Your task to perform on an android device: Open the calendar and show me this week's events? Image 0: 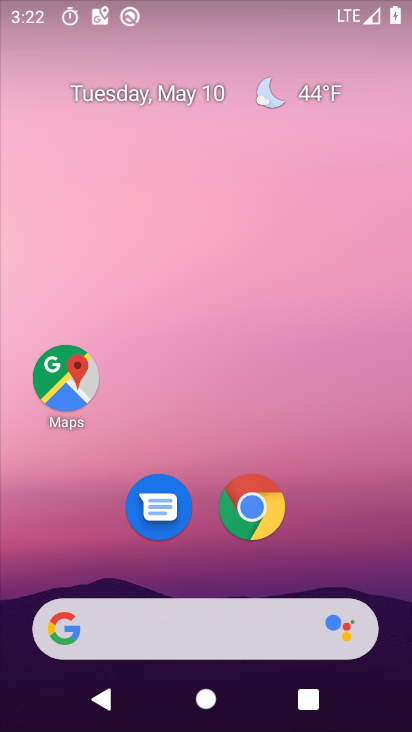
Step 0: drag from (199, 607) to (256, 298)
Your task to perform on an android device: Open the calendar and show me this week's events? Image 1: 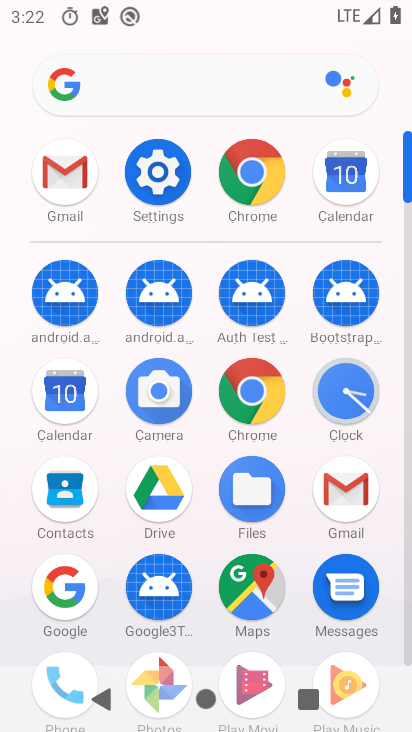
Step 1: click (66, 389)
Your task to perform on an android device: Open the calendar and show me this week's events? Image 2: 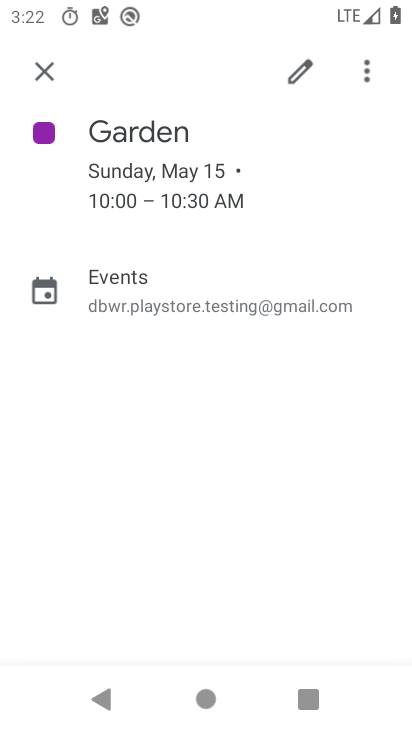
Step 2: click (47, 70)
Your task to perform on an android device: Open the calendar and show me this week's events? Image 3: 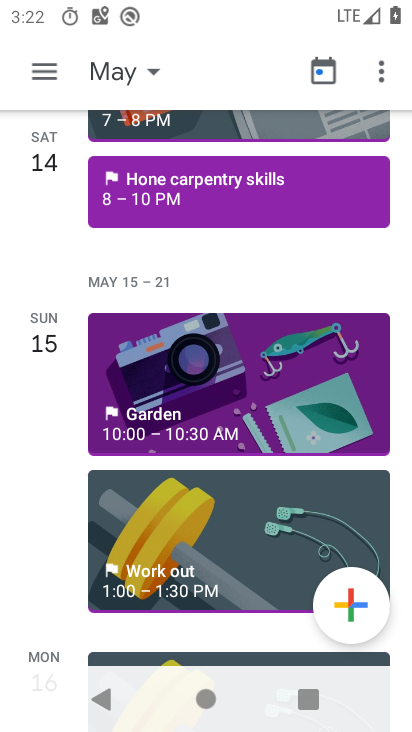
Step 3: drag from (214, 161) to (245, 536)
Your task to perform on an android device: Open the calendar and show me this week's events? Image 4: 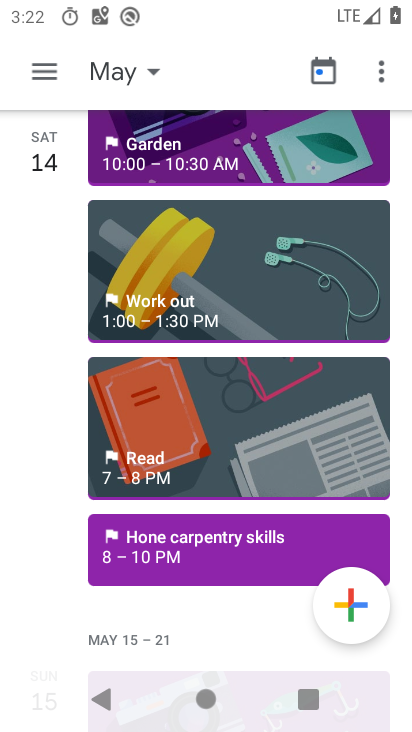
Step 4: drag from (258, 146) to (270, 457)
Your task to perform on an android device: Open the calendar and show me this week's events? Image 5: 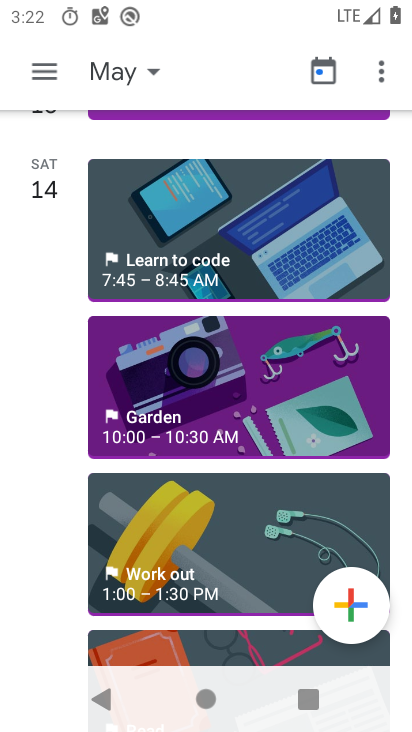
Step 5: drag from (258, 166) to (283, 535)
Your task to perform on an android device: Open the calendar and show me this week's events? Image 6: 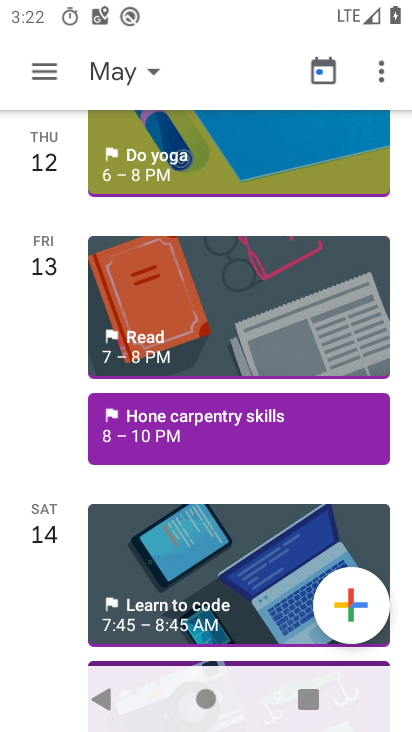
Step 6: drag from (337, 115) to (326, 426)
Your task to perform on an android device: Open the calendar and show me this week's events? Image 7: 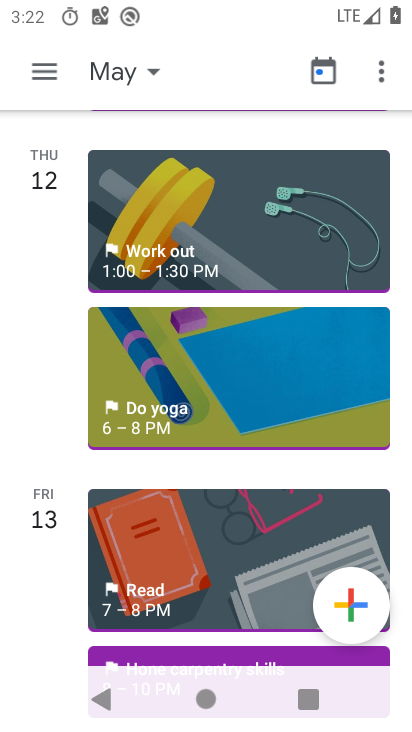
Step 7: drag from (330, 280) to (356, 371)
Your task to perform on an android device: Open the calendar and show me this week's events? Image 8: 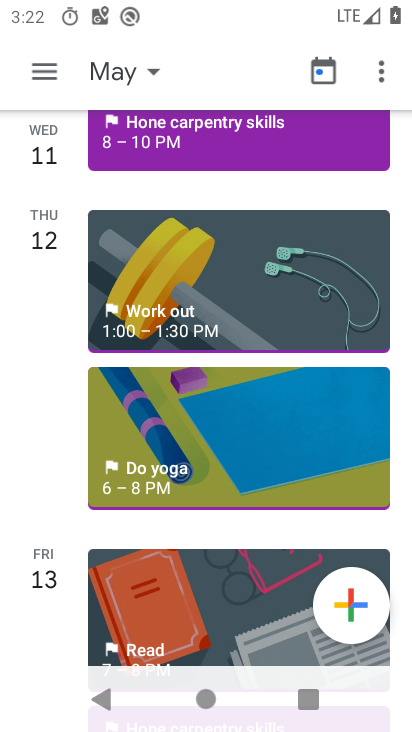
Step 8: click (309, 561)
Your task to perform on an android device: Open the calendar and show me this week's events? Image 9: 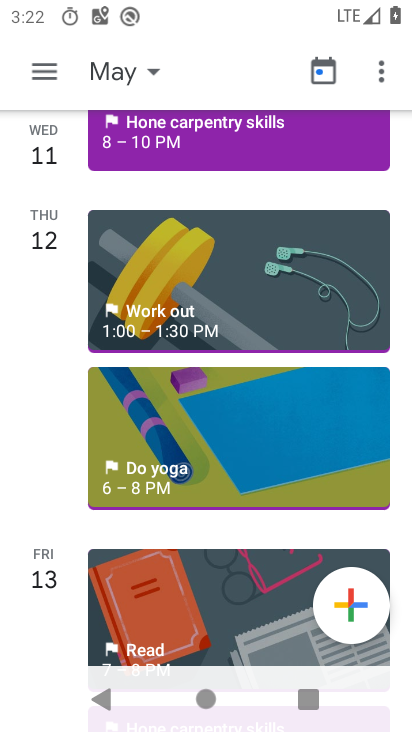
Step 9: task complete